Your task to perform on an android device: open app "Truecaller" (install if not already installed) and go to login screen Image 0: 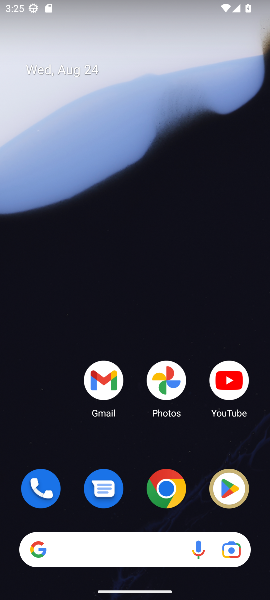
Step 0: click (234, 500)
Your task to perform on an android device: open app "Truecaller" (install if not already installed) and go to login screen Image 1: 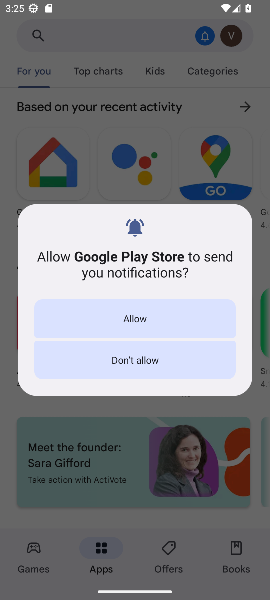
Step 1: click (157, 312)
Your task to perform on an android device: open app "Truecaller" (install if not already installed) and go to login screen Image 2: 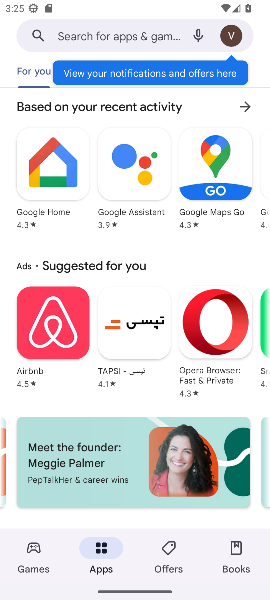
Step 2: click (107, 29)
Your task to perform on an android device: open app "Truecaller" (install if not already installed) and go to login screen Image 3: 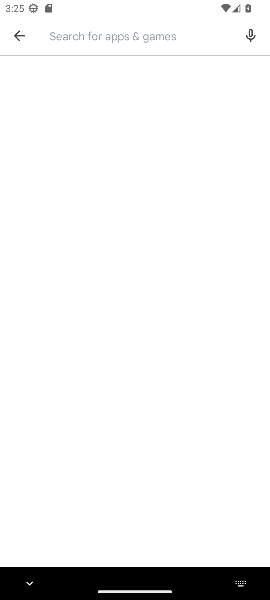
Step 3: type "truecalller"
Your task to perform on an android device: open app "Truecaller" (install if not already installed) and go to login screen Image 4: 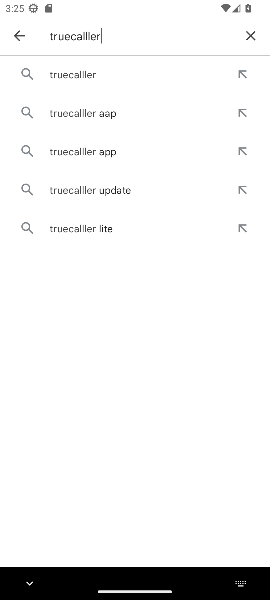
Step 4: click (124, 78)
Your task to perform on an android device: open app "Truecaller" (install if not already installed) and go to login screen Image 5: 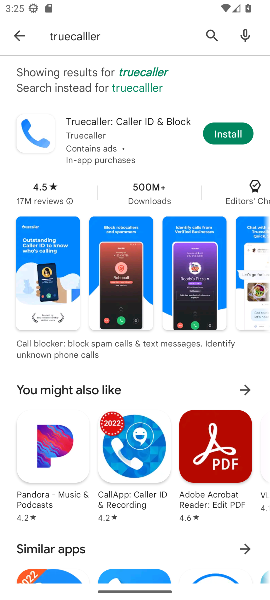
Step 5: click (220, 133)
Your task to perform on an android device: open app "Truecaller" (install if not already installed) and go to login screen Image 6: 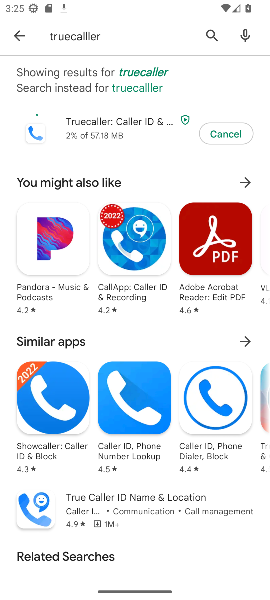
Step 6: task complete